Your task to perform on an android device: clear all cookies in the chrome app Image 0: 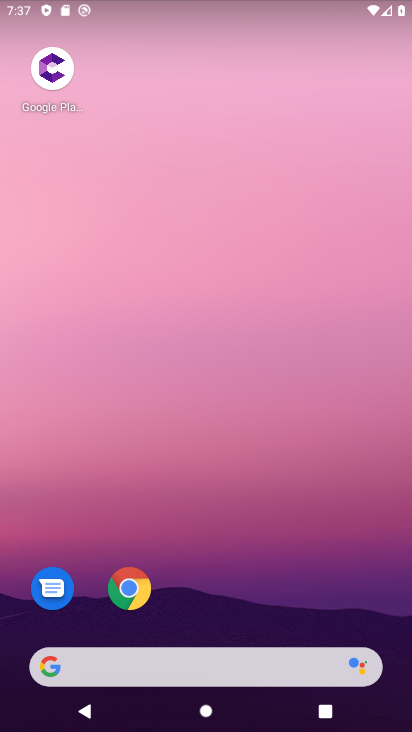
Step 0: drag from (307, 583) to (256, 36)
Your task to perform on an android device: clear all cookies in the chrome app Image 1: 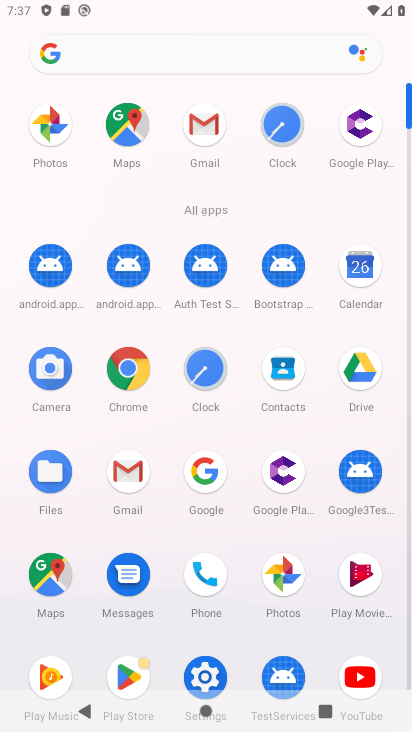
Step 1: click (132, 370)
Your task to perform on an android device: clear all cookies in the chrome app Image 2: 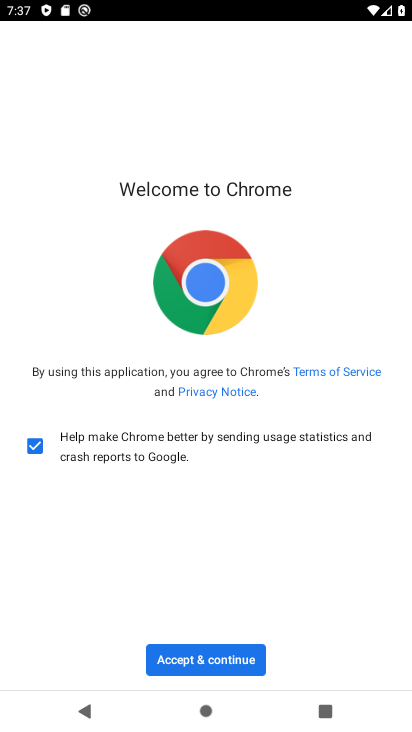
Step 2: click (214, 670)
Your task to perform on an android device: clear all cookies in the chrome app Image 3: 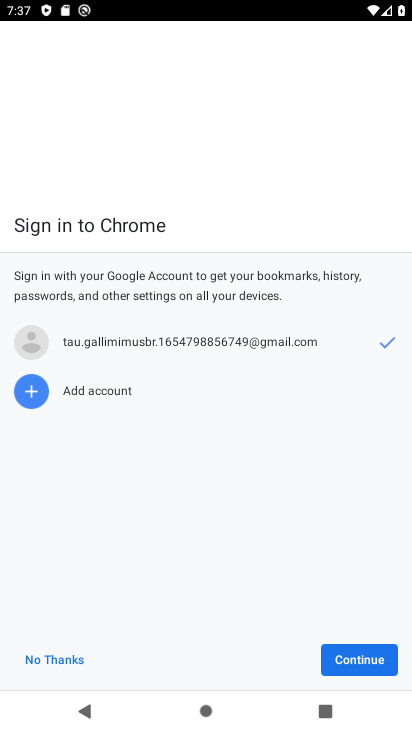
Step 3: click (357, 657)
Your task to perform on an android device: clear all cookies in the chrome app Image 4: 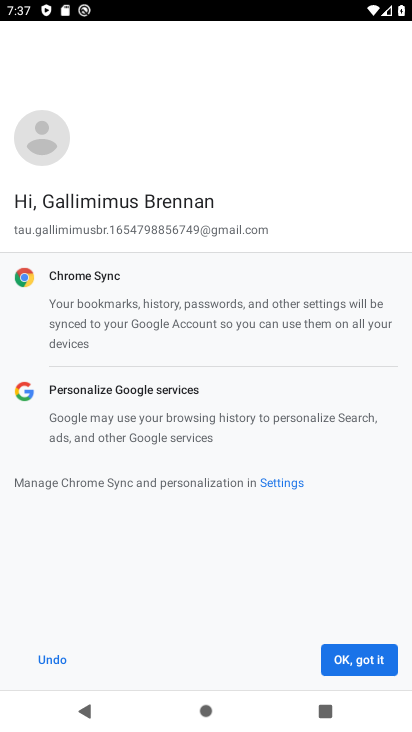
Step 4: click (357, 657)
Your task to perform on an android device: clear all cookies in the chrome app Image 5: 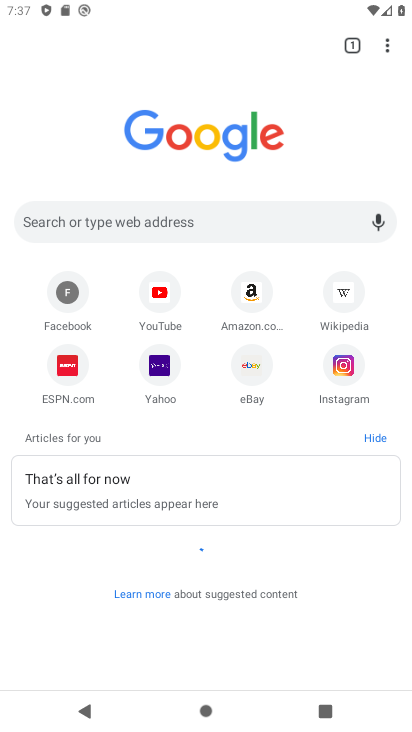
Step 5: drag from (392, 46) to (237, 387)
Your task to perform on an android device: clear all cookies in the chrome app Image 6: 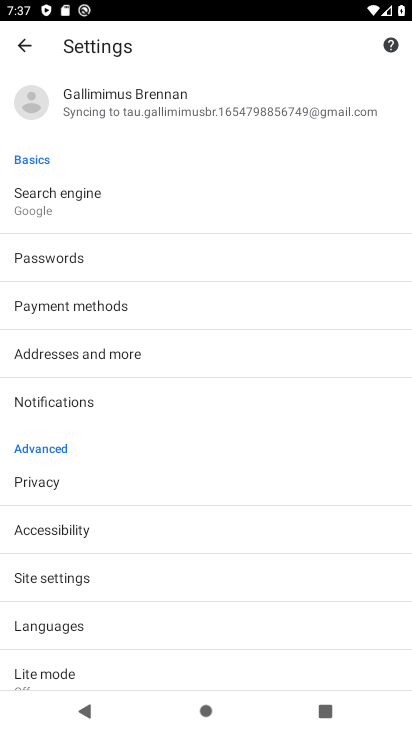
Step 6: click (33, 41)
Your task to perform on an android device: clear all cookies in the chrome app Image 7: 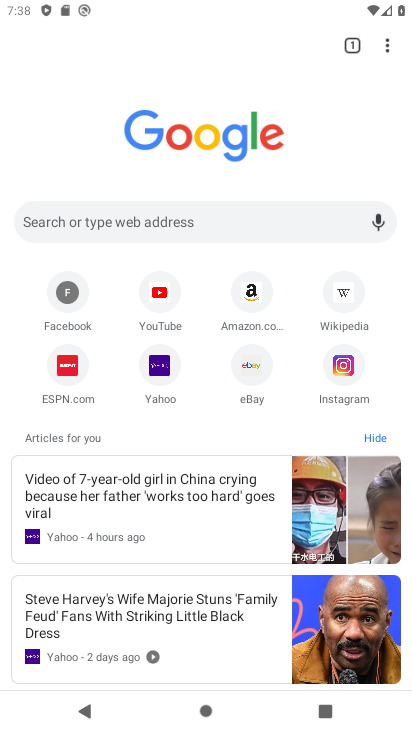
Step 7: drag from (396, 41) to (254, 261)
Your task to perform on an android device: clear all cookies in the chrome app Image 8: 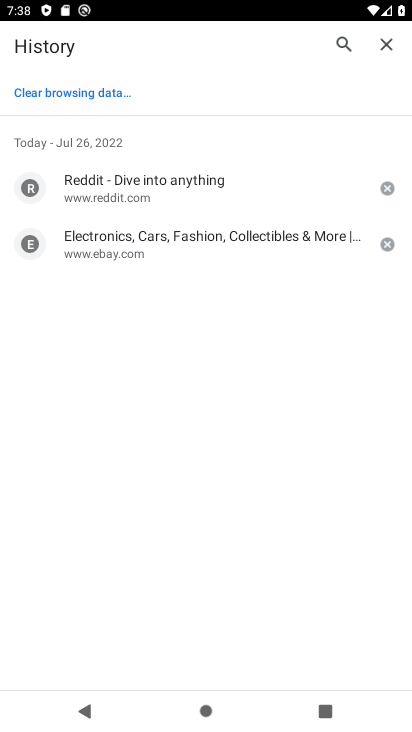
Step 8: click (93, 87)
Your task to perform on an android device: clear all cookies in the chrome app Image 9: 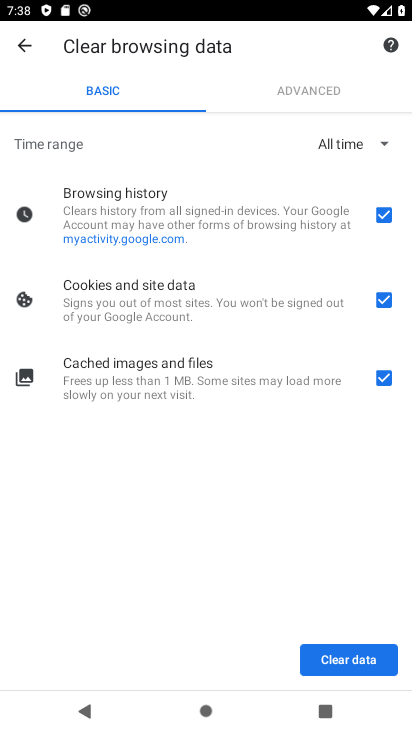
Step 9: click (333, 665)
Your task to perform on an android device: clear all cookies in the chrome app Image 10: 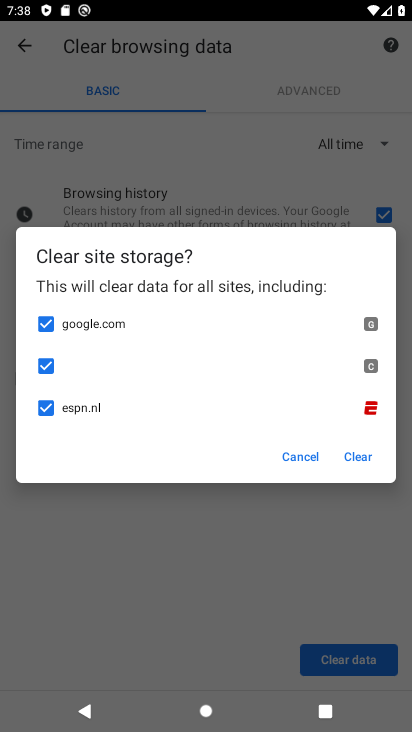
Step 10: click (358, 457)
Your task to perform on an android device: clear all cookies in the chrome app Image 11: 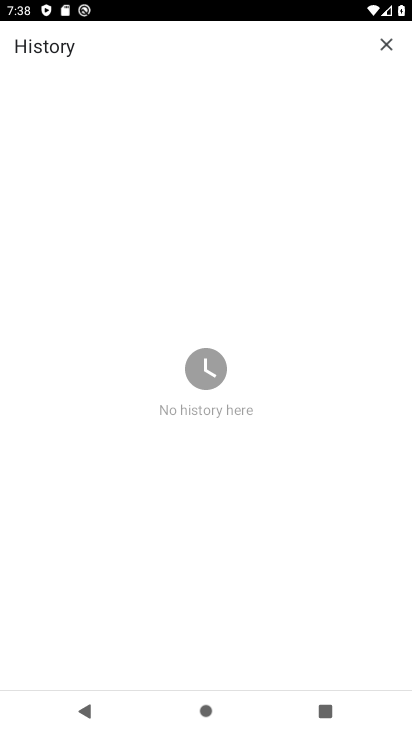
Step 11: task complete